Your task to perform on an android device: see sites visited before in the chrome app Image 0: 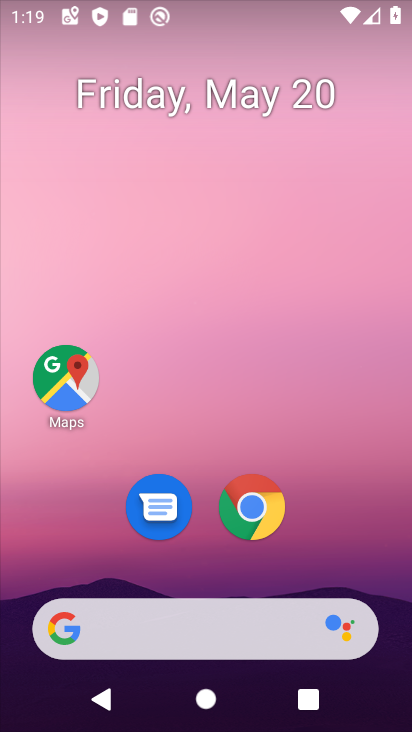
Step 0: drag from (236, 723) to (200, 129)
Your task to perform on an android device: see sites visited before in the chrome app Image 1: 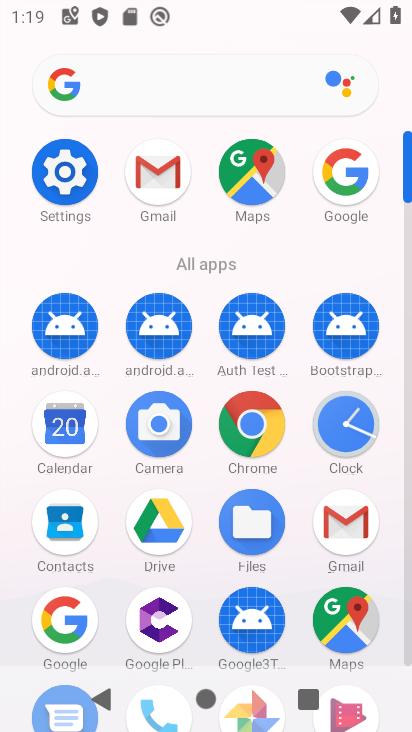
Step 1: click (251, 423)
Your task to perform on an android device: see sites visited before in the chrome app Image 2: 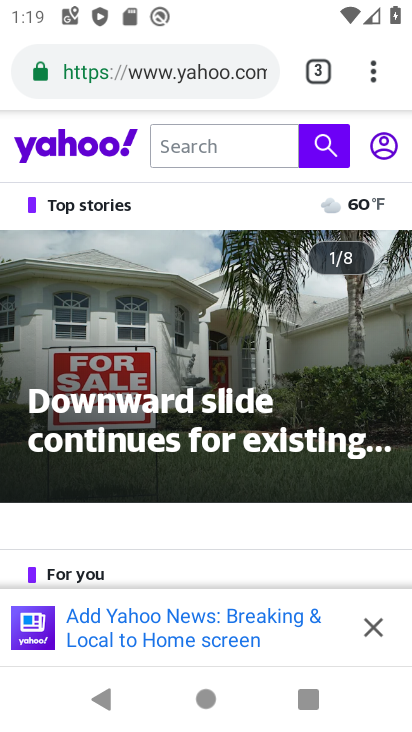
Step 2: click (372, 72)
Your task to perform on an android device: see sites visited before in the chrome app Image 3: 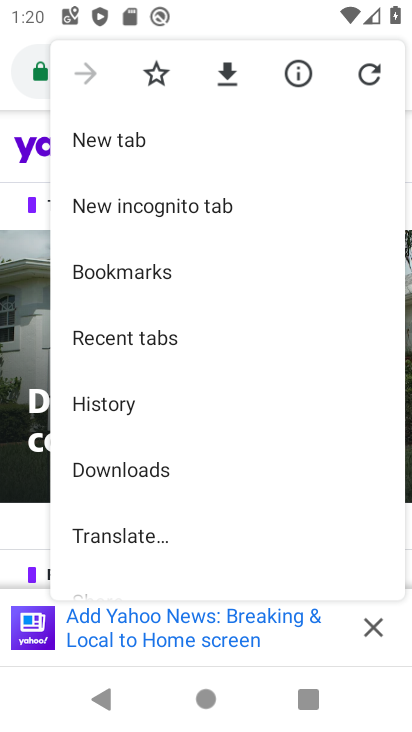
Step 3: click (112, 400)
Your task to perform on an android device: see sites visited before in the chrome app Image 4: 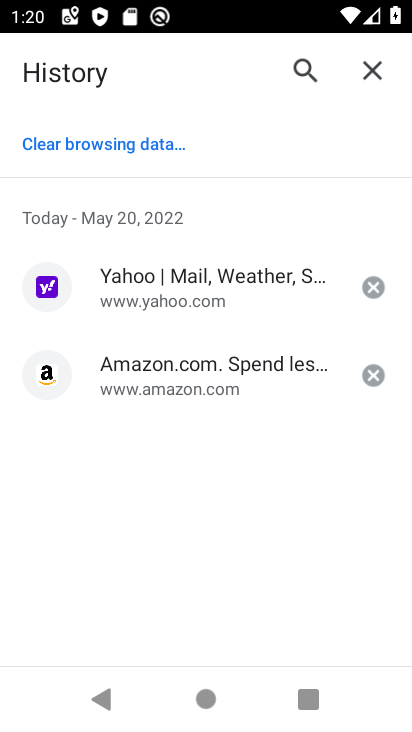
Step 4: task complete